Your task to perform on an android device: add a contact Image 0: 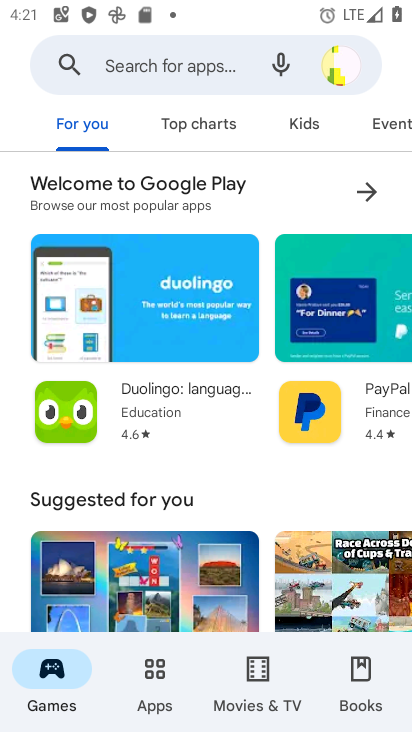
Step 0: press home button
Your task to perform on an android device: add a contact Image 1: 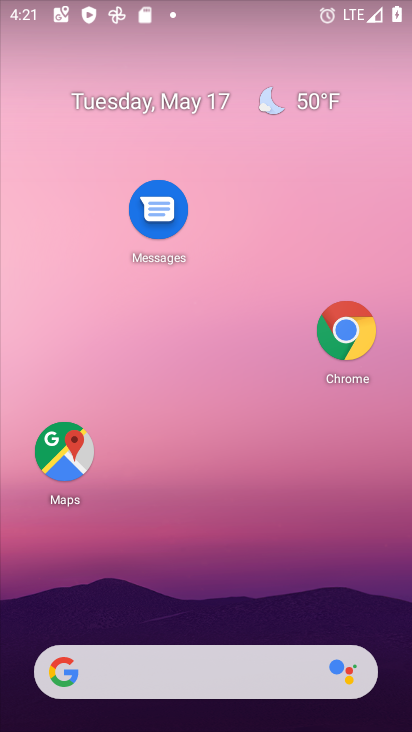
Step 1: drag from (245, 553) to (215, 117)
Your task to perform on an android device: add a contact Image 2: 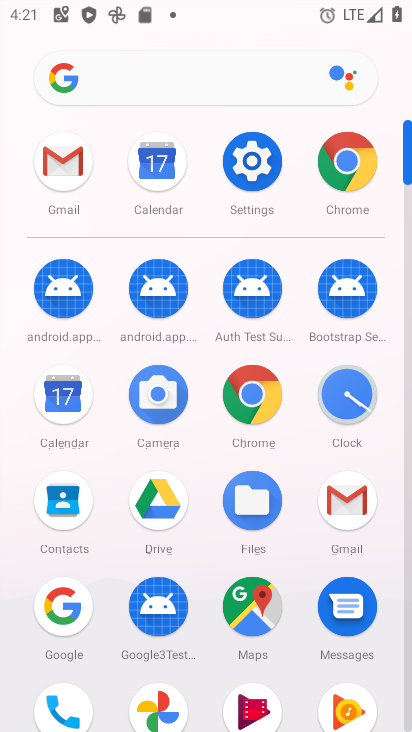
Step 2: click (75, 509)
Your task to perform on an android device: add a contact Image 3: 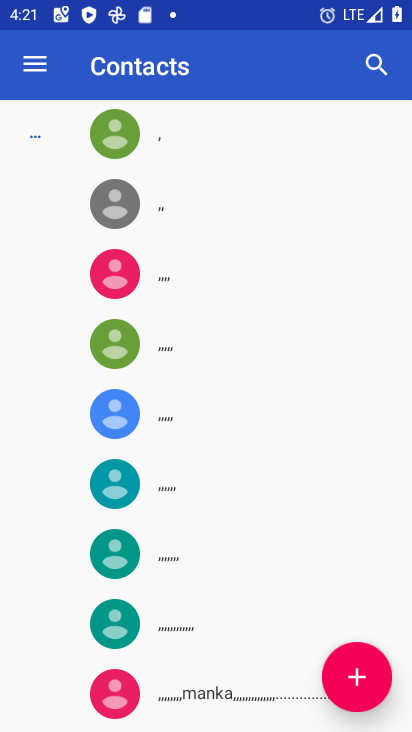
Step 3: click (363, 676)
Your task to perform on an android device: add a contact Image 4: 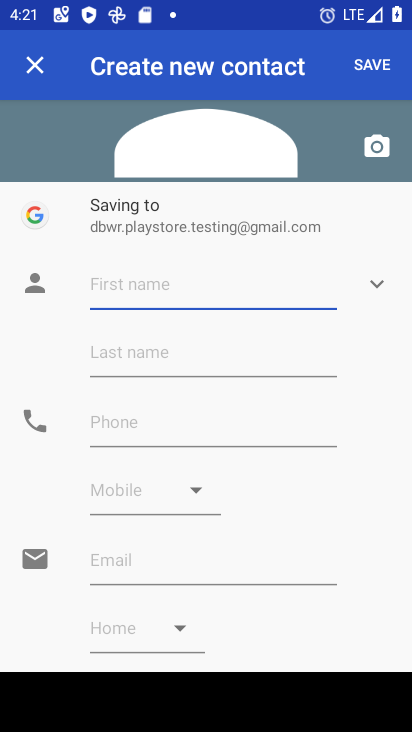
Step 4: type "sdfdsvdfv"
Your task to perform on an android device: add a contact Image 5: 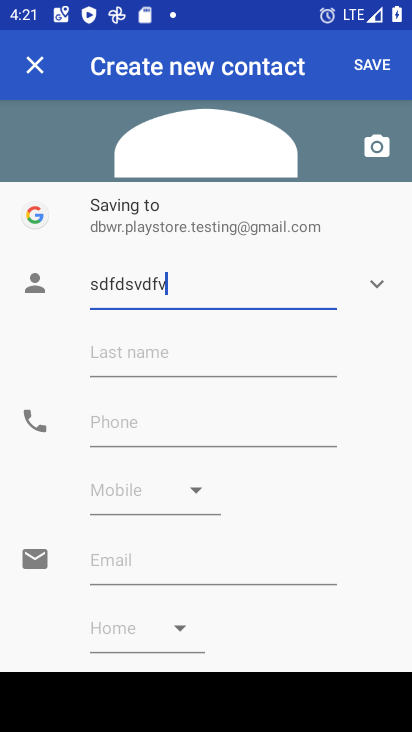
Step 5: click (252, 332)
Your task to perform on an android device: add a contact Image 6: 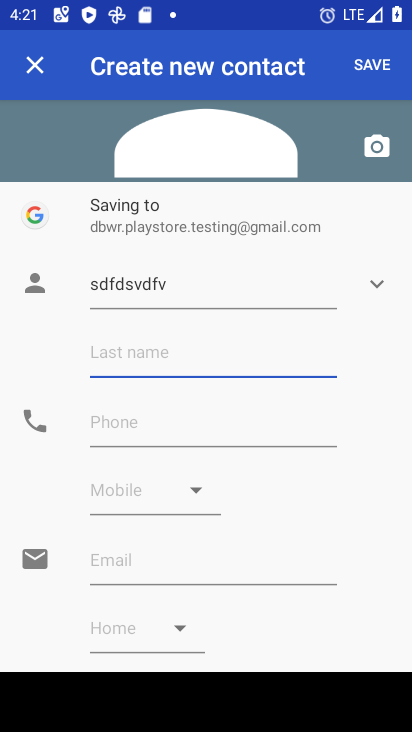
Step 6: click (259, 357)
Your task to perform on an android device: add a contact Image 7: 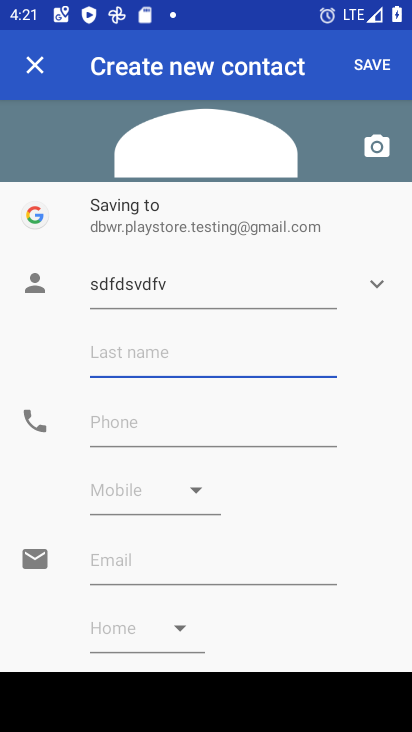
Step 7: type "zdccvdvfg"
Your task to perform on an android device: add a contact Image 8: 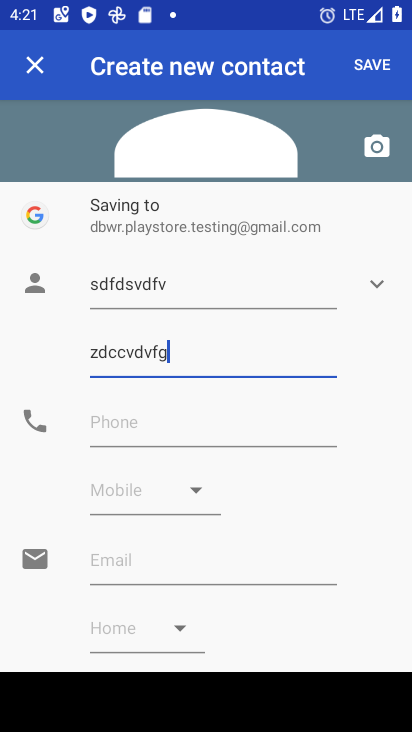
Step 8: click (213, 411)
Your task to perform on an android device: add a contact Image 9: 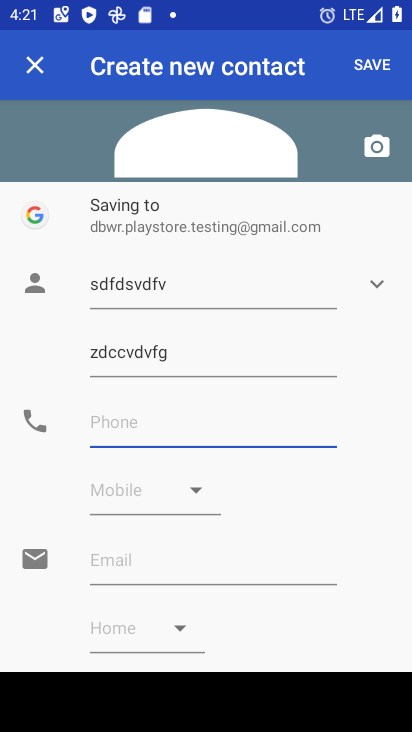
Step 9: type "s21232423"
Your task to perform on an android device: add a contact Image 10: 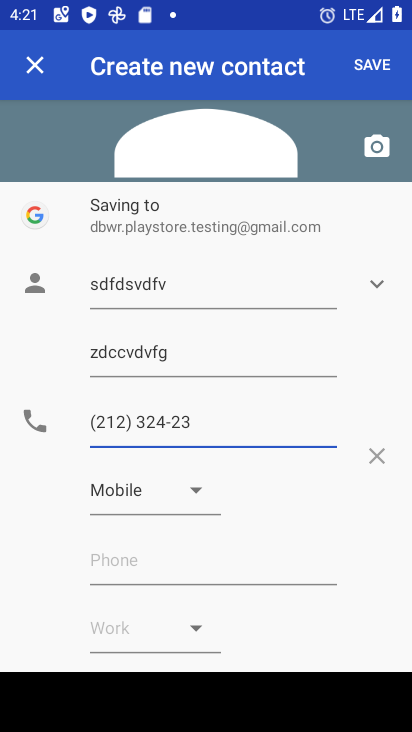
Step 10: click (390, 58)
Your task to perform on an android device: add a contact Image 11: 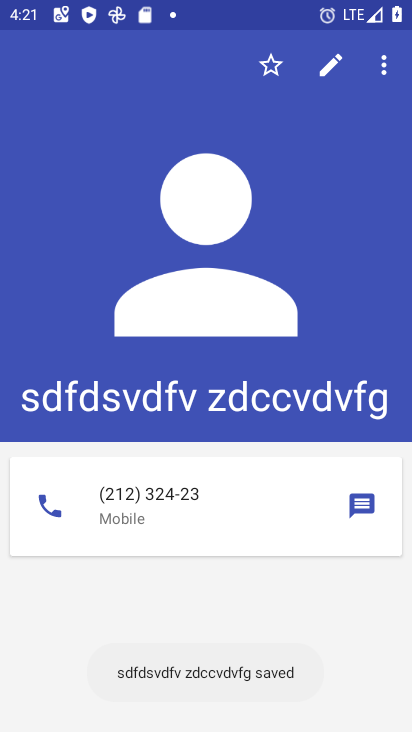
Step 11: task complete